Your task to perform on an android device: turn on wifi Image 0: 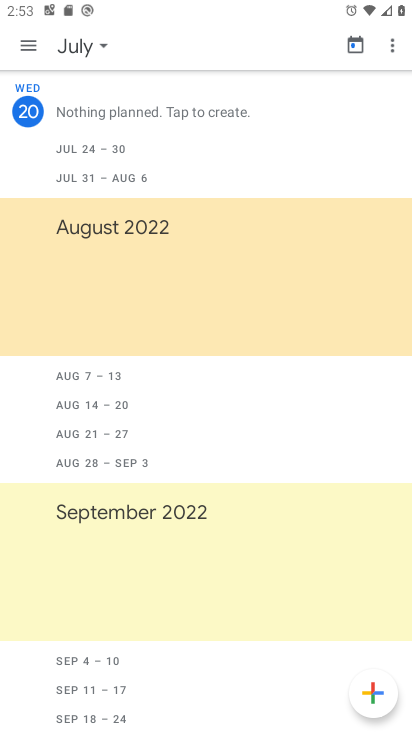
Step 0: press home button
Your task to perform on an android device: turn on wifi Image 1: 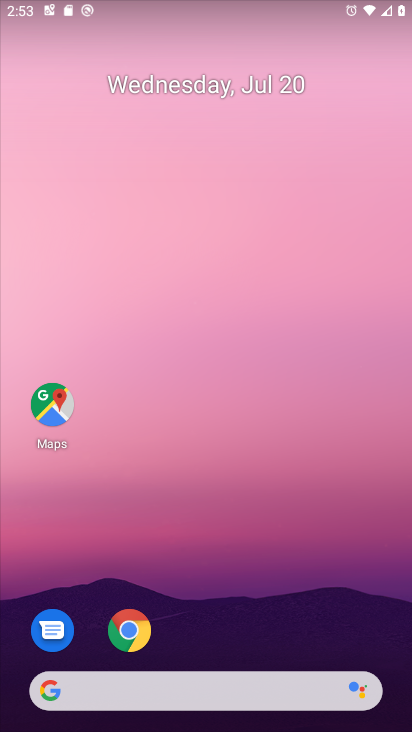
Step 1: drag from (298, 673) to (335, 171)
Your task to perform on an android device: turn on wifi Image 2: 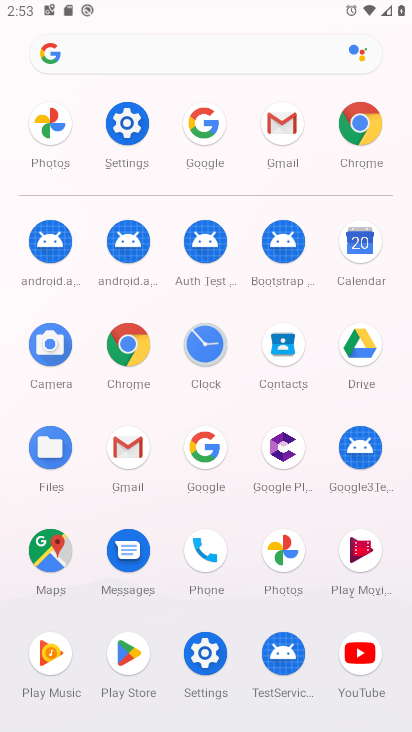
Step 2: click (132, 143)
Your task to perform on an android device: turn on wifi Image 3: 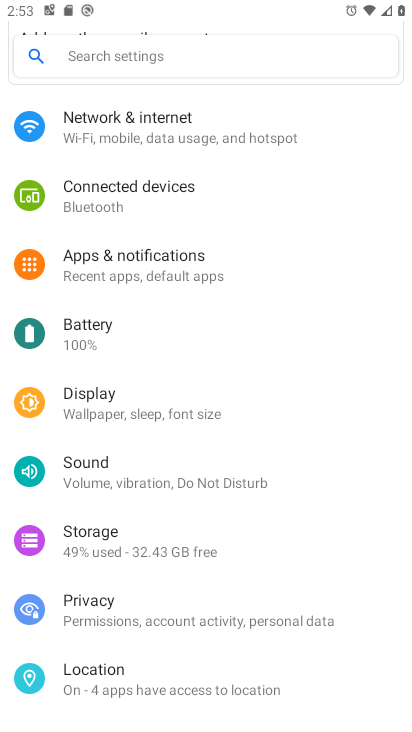
Step 3: drag from (141, 242) to (142, 405)
Your task to perform on an android device: turn on wifi Image 4: 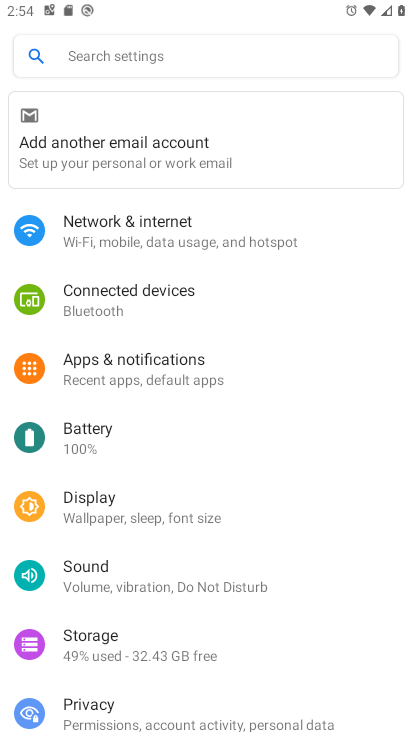
Step 4: click (147, 241)
Your task to perform on an android device: turn on wifi Image 5: 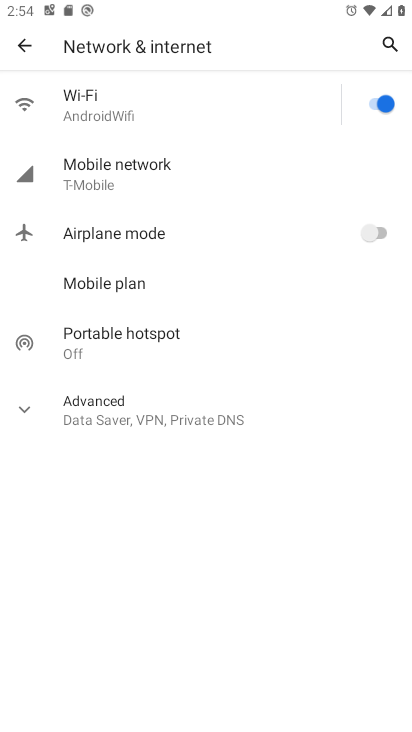
Step 5: task complete